Your task to perform on an android device: check data usage Image 0: 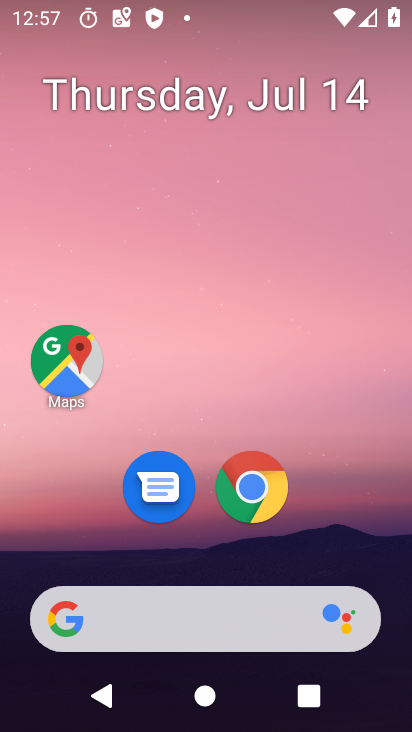
Step 0: drag from (231, 630) to (226, 177)
Your task to perform on an android device: check data usage Image 1: 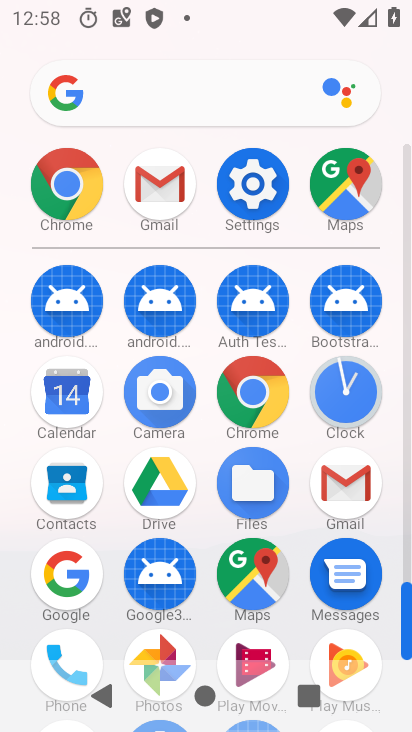
Step 1: click (249, 196)
Your task to perform on an android device: check data usage Image 2: 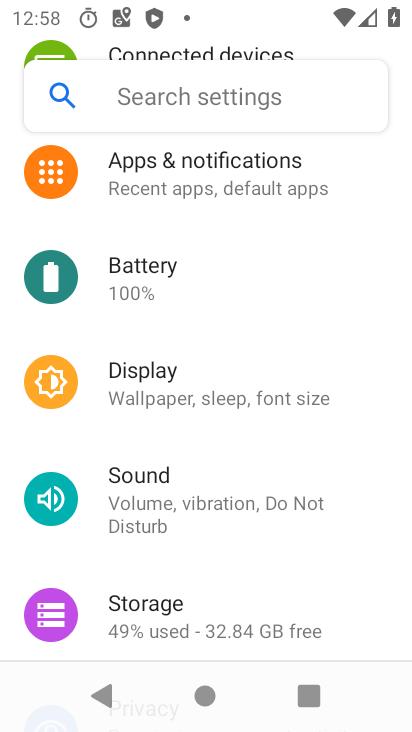
Step 2: drag from (227, 287) to (245, 549)
Your task to perform on an android device: check data usage Image 3: 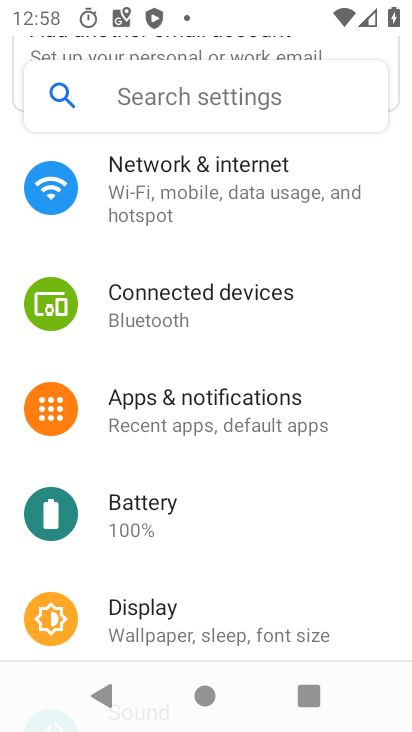
Step 3: click (242, 199)
Your task to perform on an android device: check data usage Image 4: 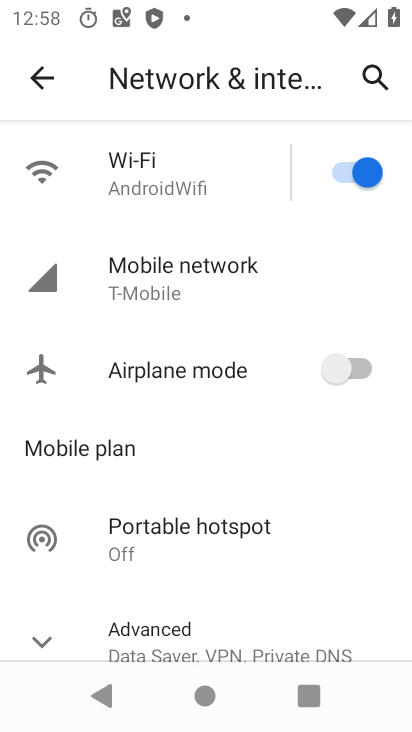
Step 4: click (217, 281)
Your task to perform on an android device: check data usage Image 5: 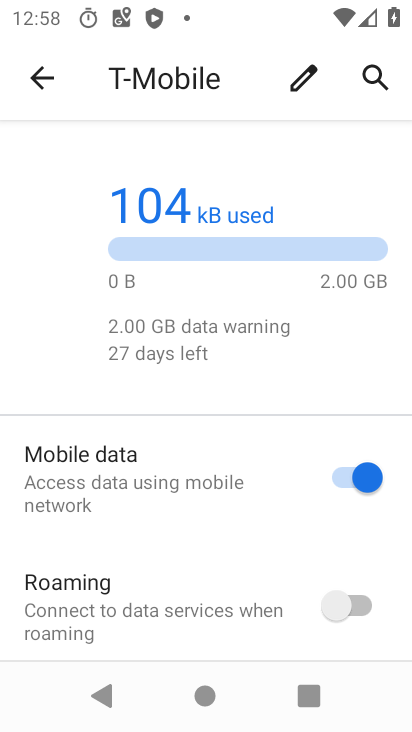
Step 5: drag from (205, 520) to (210, 290)
Your task to perform on an android device: check data usage Image 6: 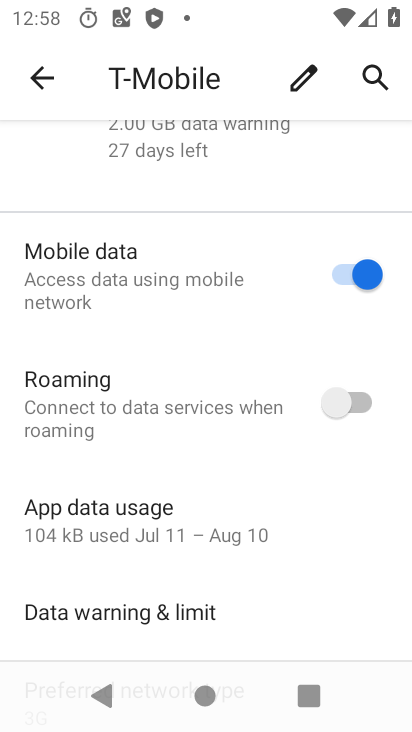
Step 6: click (172, 524)
Your task to perform on an android device: check data usage Image 7: 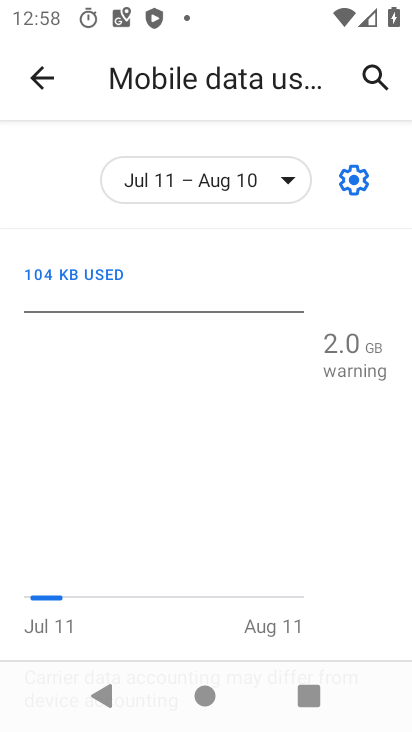
Step 7: task complete